Your task to perform on an android device: allow cookies in the chrome app Image 0: 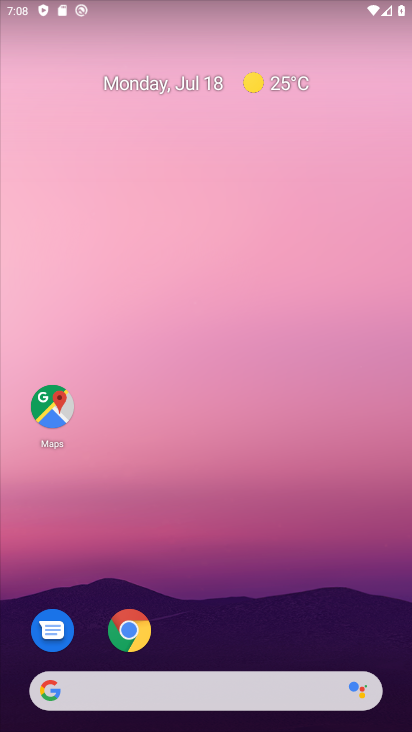
Step 0: press home button
Your task to perform on an android device: allow cookies in the chrome app Image 1: 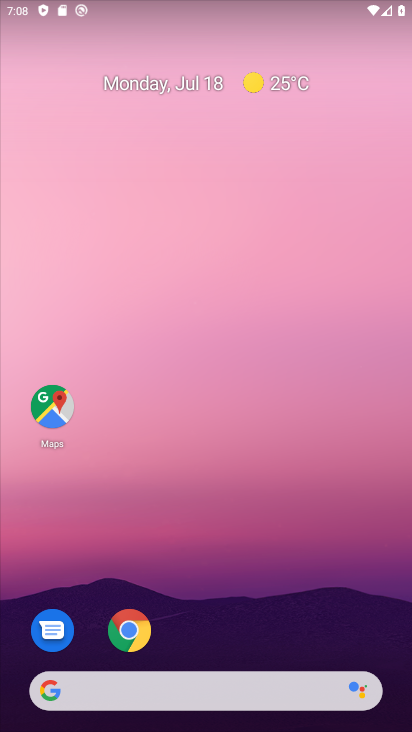
Step 1: drag from (278, 717) to (237, 240)
Your task to perform on an android device: allow cookies in the chrome app Image 2: 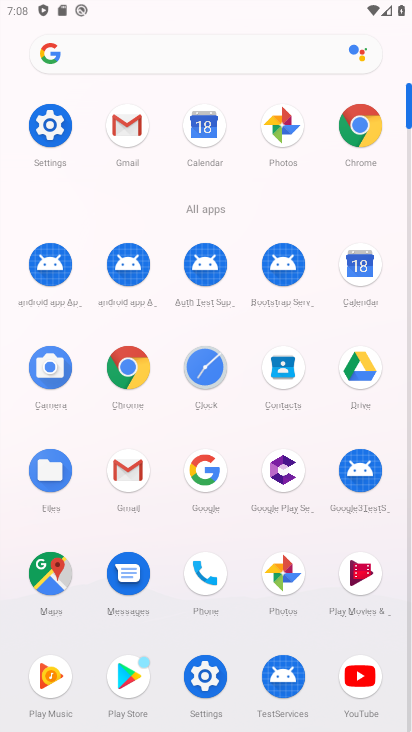
Step 2: click (370, 125)
Your task to perform on an android device: allow cookies in the chrome app Image 3: 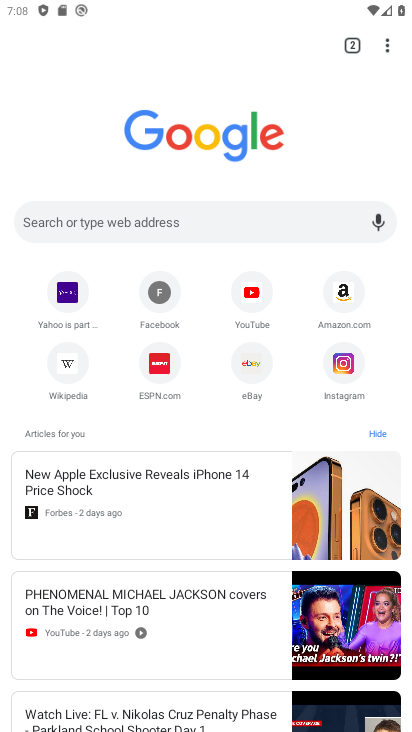
Step 3: click (384, 51)
Your task to perform on an android device: allow cookies in the chrome app Image 4: 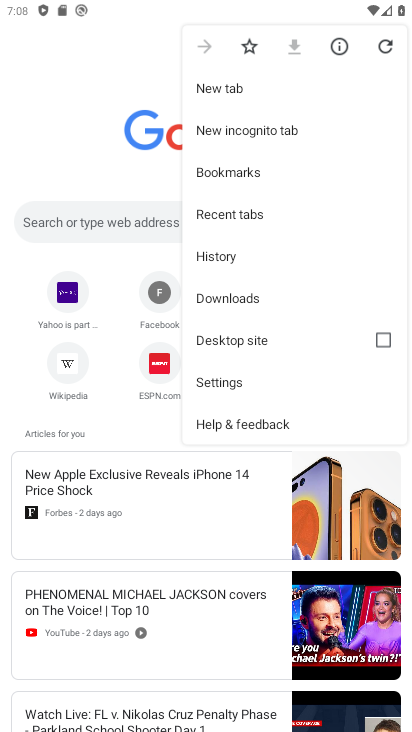
Step 4: click (220, 380)
Your task to perform on an android device: allow cookies in the chrome app Image 5: 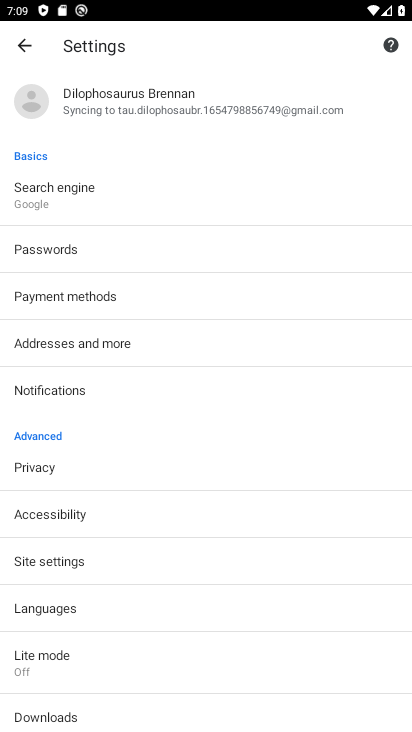
Step 5: click (70, 553)
Your task to perform on an android device: allow cookies in the chrome app Image 6: 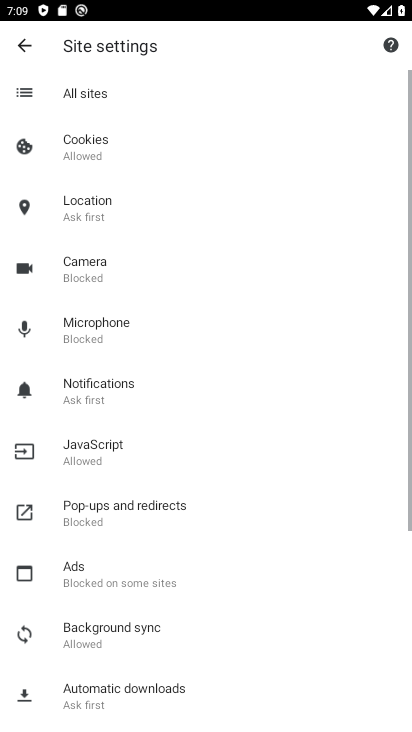
Step 6: click (139, 146)
Your task to perform on an android device: allow cookies in the chrome app Image 7: 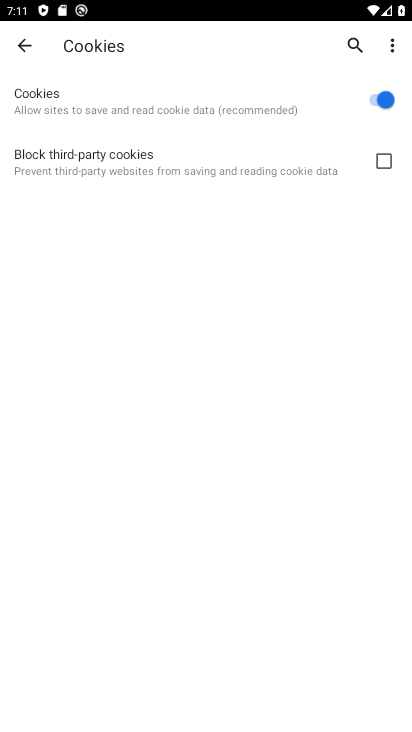
Step 7: task complete